Your task to perform on an android device: Open Google Chrome and click the shortcut for Amazon.com Image 0: 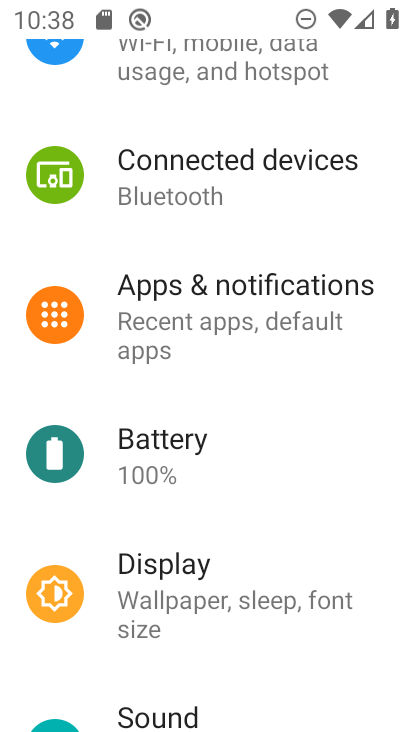
Step 0: press back button
Your task to perform on an android device: Open Google Chrome and click the shortcut for Amazon.com Image 1: 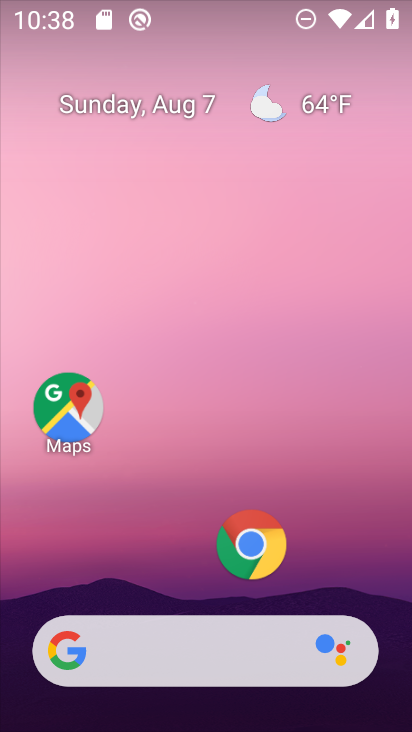
Step 1: drag from (167, 590) to (300, 42)
Your task to perform on an android device: Open Google Chrome and click the shortcut for Amazon.com Image 2: 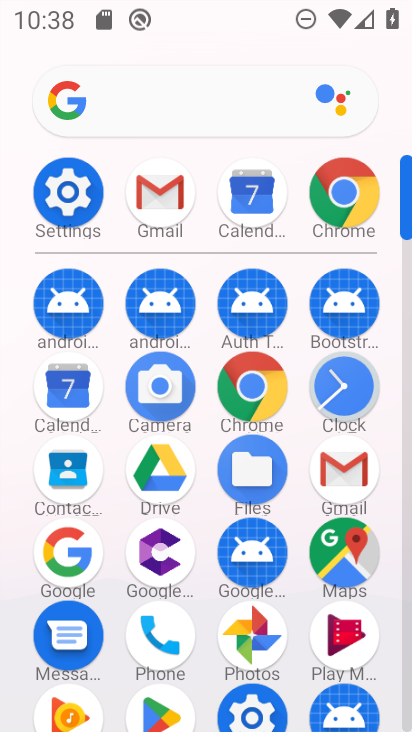
Step 2: click (323, 163)
Your task to perform on an android device: Open Google Chrome and click the shortcut for Amazon.com Image 3: 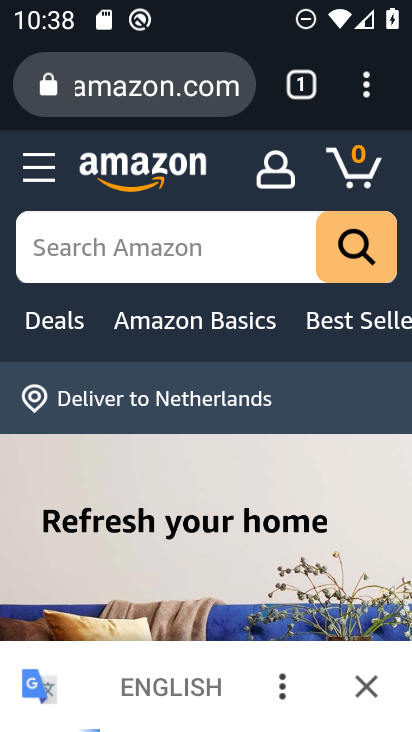
Step 3: click (261, 92)
Your task to perform on an android device: Open Google Chrome and click the shortcut for Amazon.com Image 4: 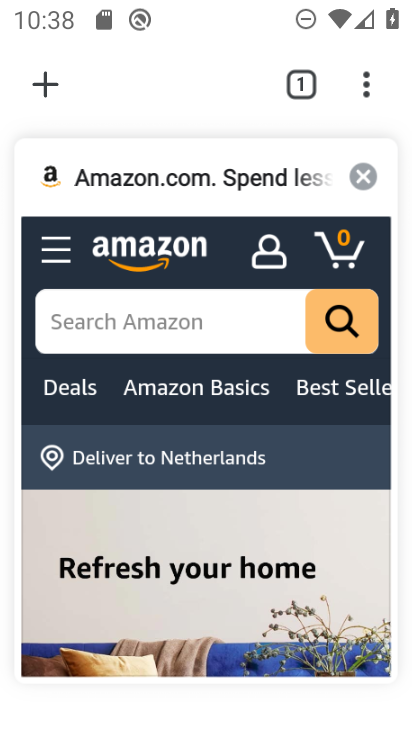
Step 4: task complete